Your task to perform on an android device: Search for Mexican restaurants on Maps Image 0: 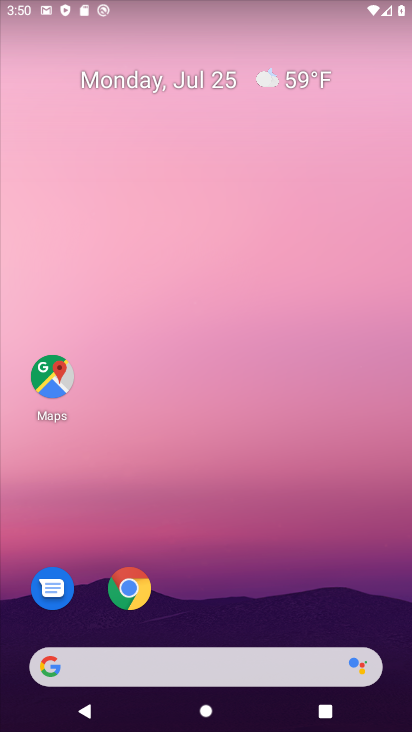
Step 0: press home button
Your task to perform on an android device: Search for Mexican restaurants on Maps Image 1: 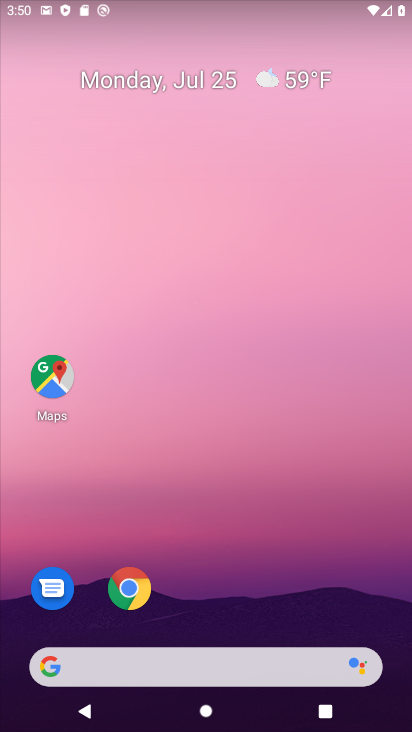
Step 1: drag from (233, 674) to (195, 286)
Your task to perform on an android device: Search for Mexican restaurants on Maps Image 2: 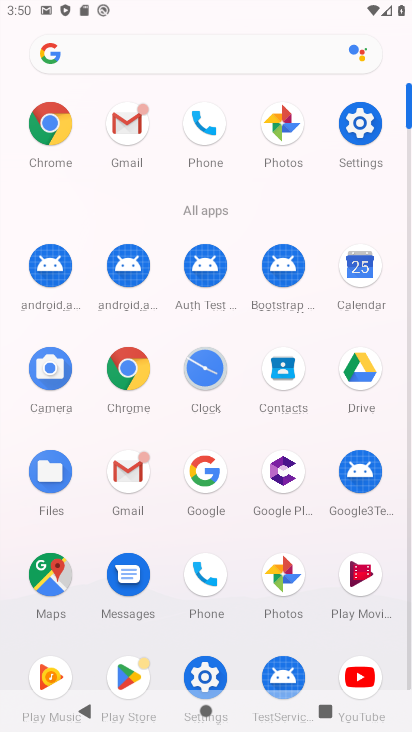
Step 2: click (56, 549)
Your task to perform on an android device: Search for Mexican restaurants on Maps Image 3: 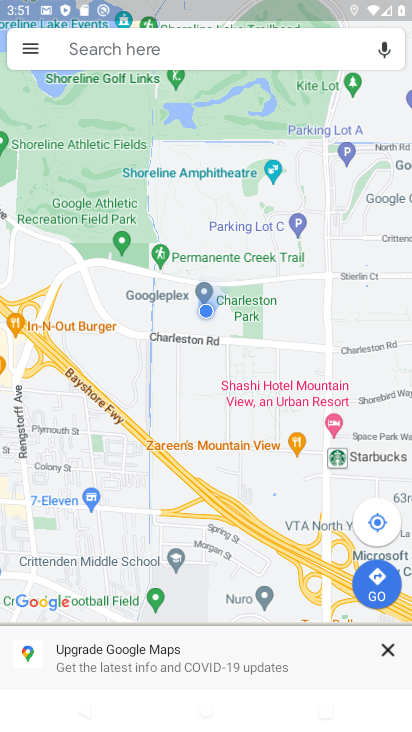
Step 3: click (149, 39)
Your task to perform on an android device: Search for Mexican restaurants on Maps Image 4: 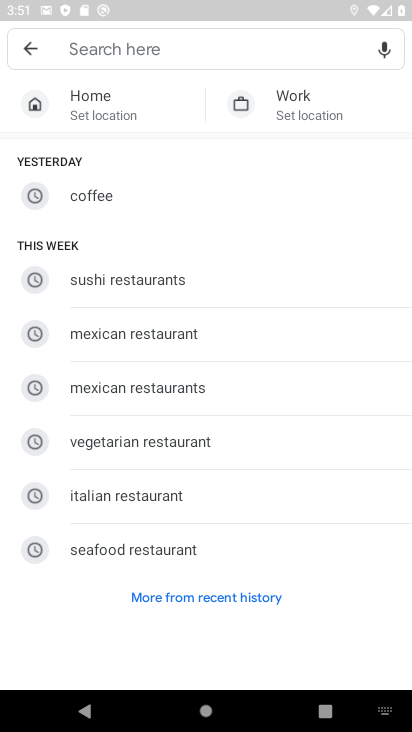
Step 4: type " Mexican restaurants"
Your task to perform on an android device: Search for Mexican restaurants on Maps Image 5: 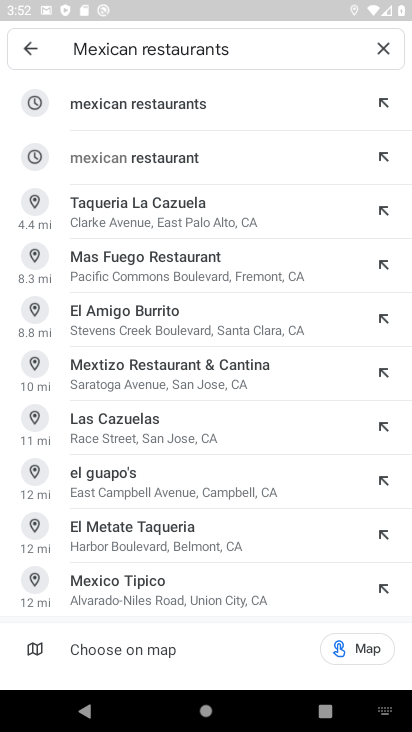
Step 5: click (159, 107)
Your task to perform on an android device: Search for Mexican restaurants on Maps Image 6: 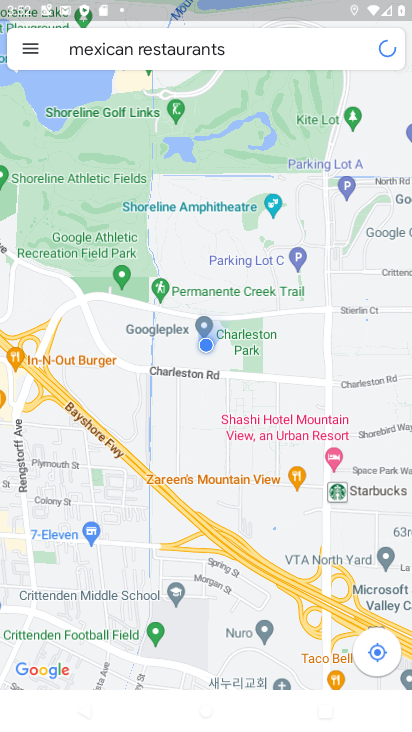
Step 6: task complete